Your task to perform on an android device: When is my next meeting? Image 0: 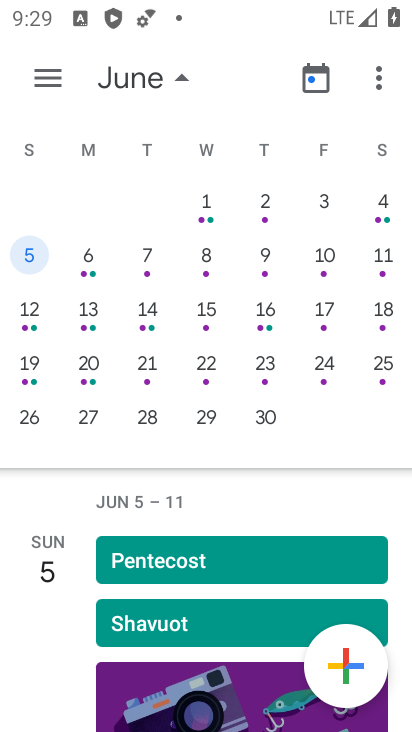
Step 0: drag from (188, 570) to (185, 326)
Your task to perform on an android device: When is my next meeting? Image 1: 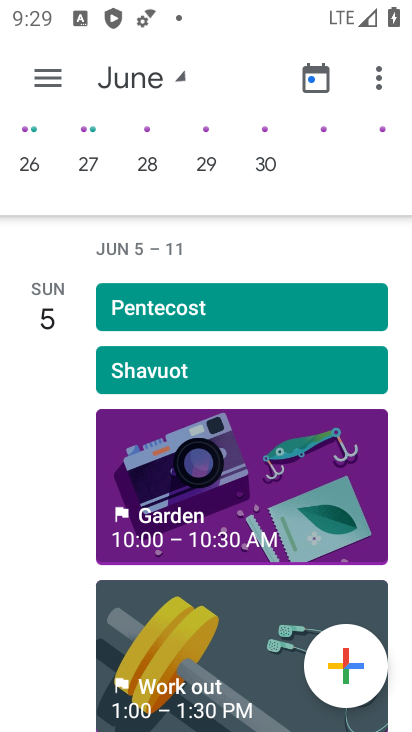
Step 1: task complete